Your task to perform on an android device: Search for Mexican restaurants on Maps Image 0: 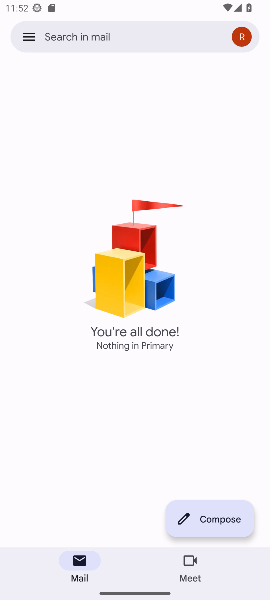
Step 0: press back button
Your task to perform on an android device: Search for Mexican restaurants on Maps Image 1: 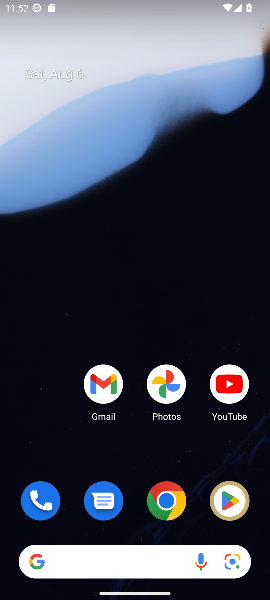
Step 1: drag from (131, 454) to (176, 97)
Your task to perform on an android device: Search for Mexican restaurants on Maps Image 2: 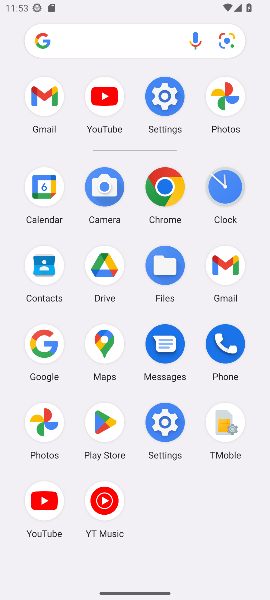
Step 2: click (41, 210)
Your task to perform on an android device: Search for Mexican restaurants on Maps Image 3: 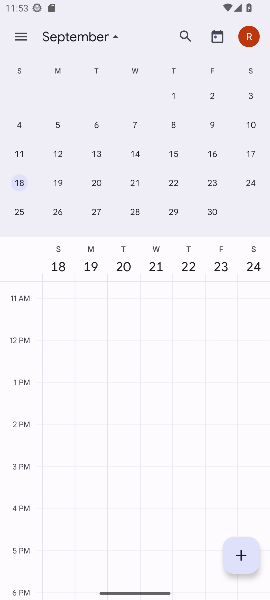
Step 3: press back button
Your task to perform on an android device: Search for Mexican restaurants on Maps Image 4: 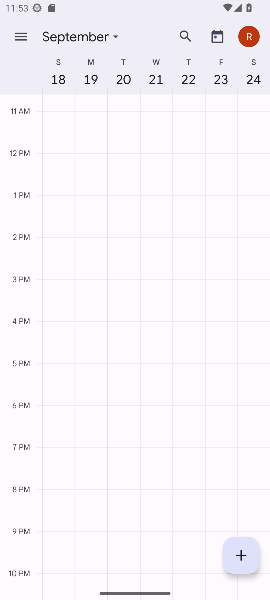
Step 4: press back button
Your task to perform on an android device: Search for Mexican restaurants on Maps Image 5: 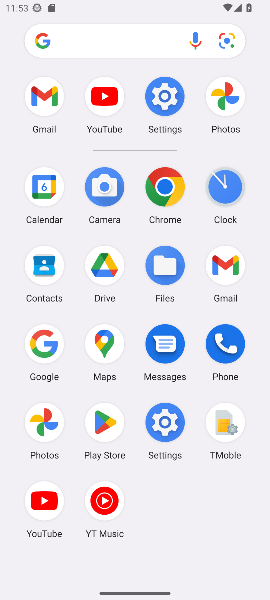
Step 5: click (108, 346)
Your task to perform on an android device: Search for Mexican restaurants on Maps Image 6: 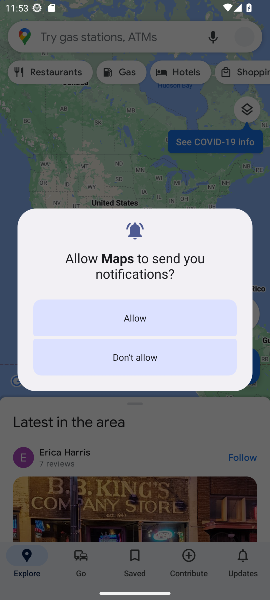
Step 6: click (124, 304)
Your task to perform on an android device: Search for Mexican restaurants on Maps Image 7: 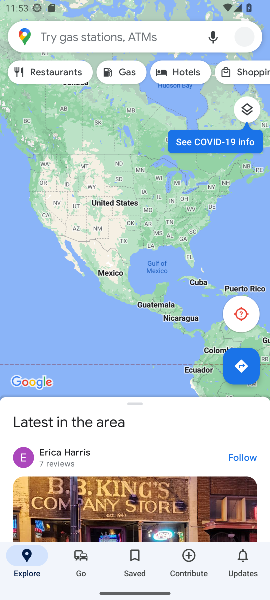
Step 7: click (130, 29)
Your task to perform on an android device: Search for Mexican restaurants on Maps Image 8: 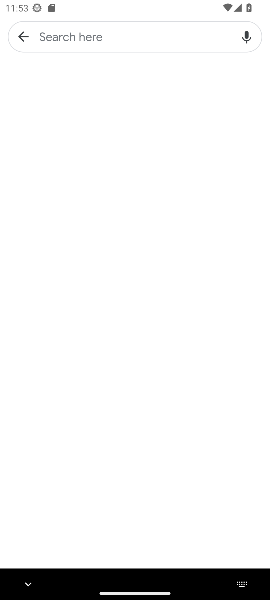
Step 8: type "Mexican restaurants"
Your task to perform on an android device: Search for Mexican restaurants on Maps Image 9: 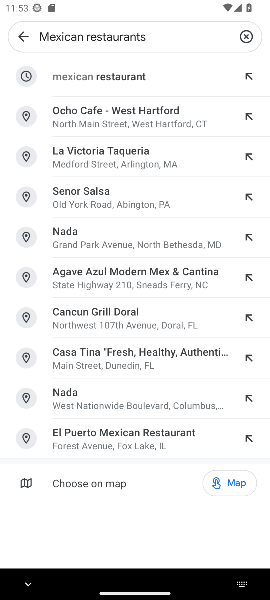
Step 9: click (141, 69)
Your task to perform on an android device: Search for Mexican restaurants on Maps Image 10: 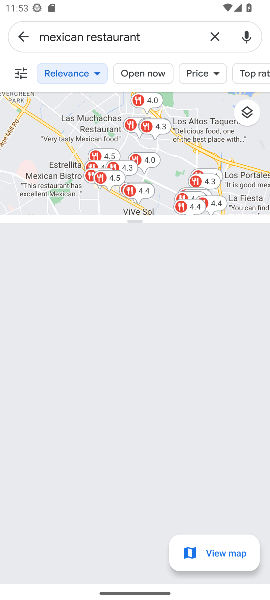
Step 10: task complete